Your task to perform on an android device: check storage Image 0: 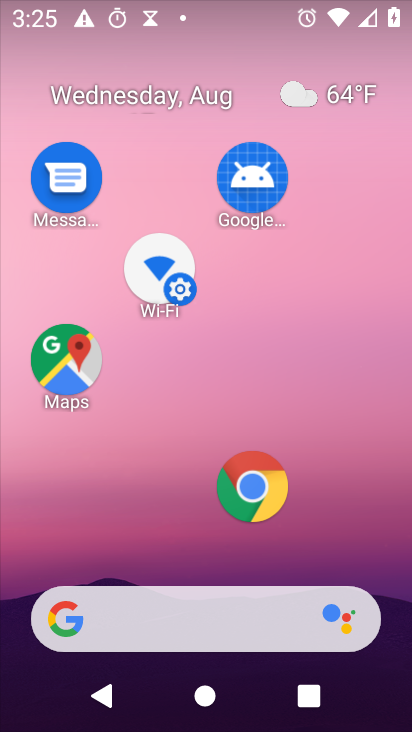
Step 0: press home button
Your task to perform on an android device: check storage Image 1: 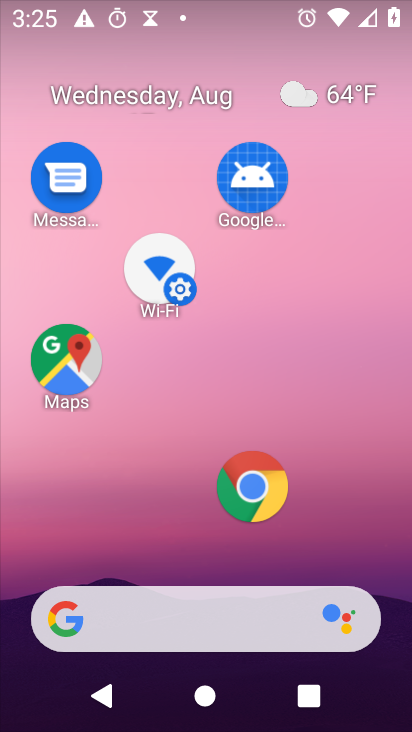
Step 1: drag from (307, 572) to (314, 39)
Your task to perform on an android device: check storage Image 2: 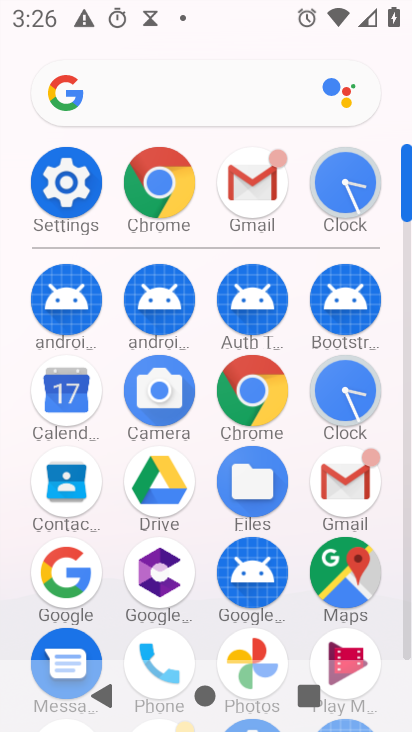
Step 2: click (40, 182)
Your task to perform on an android device: check storage Image 3: 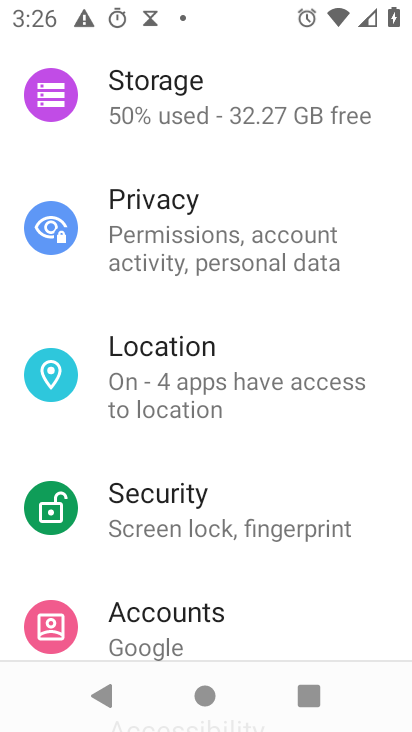
Step 3: click (155, 98)
Your task to perform on an android device: check storage Image 4: 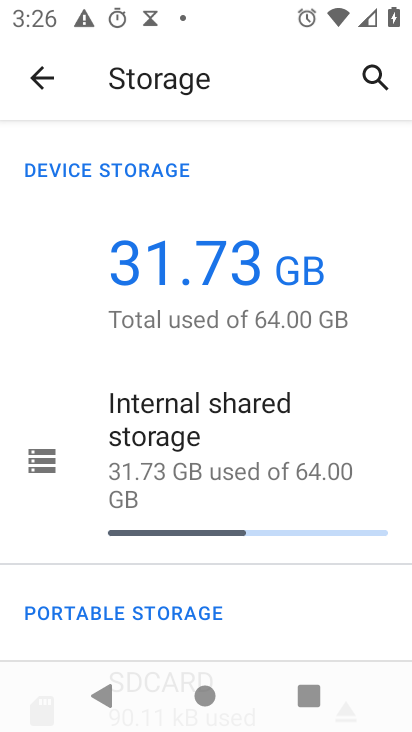
Step 4: task complete